Your task to perform on an android device: toggle notification dots Image 0: 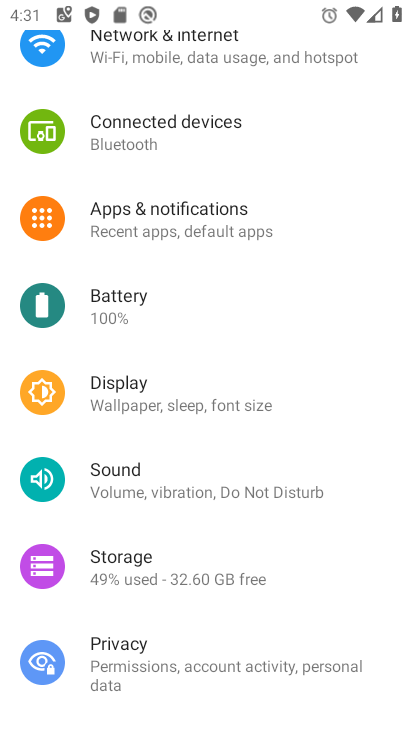
Step 0: click (136, 224)
Your task to perform on an android device: toggle notification dots Image 1: 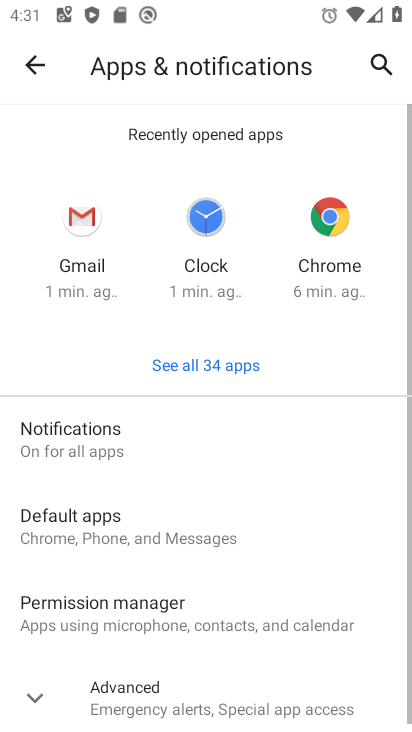
Step 1: click (88, 445)
Your task to perform on an android device: toggle notification dots Image 2: 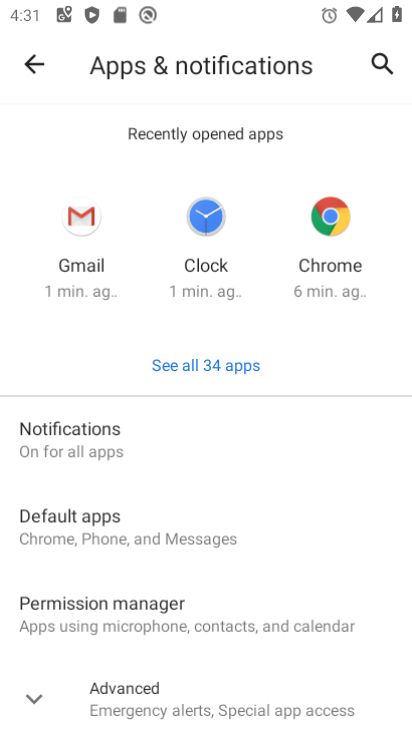
Step 2: click (59, 447)
Your task to perform on an android device: toggle notification dots Image 3: 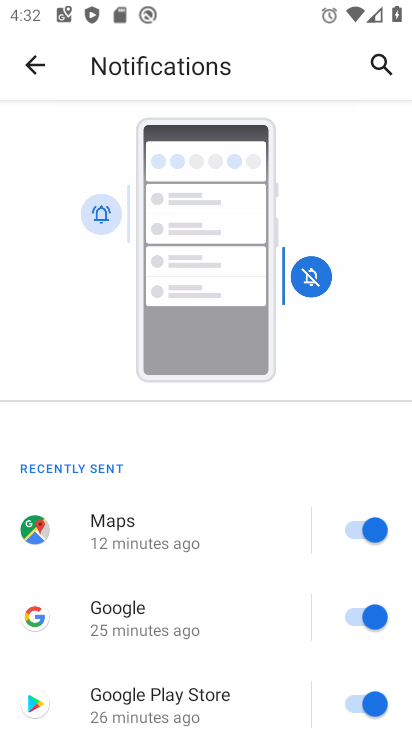
Step 3: drag from (198, 722) to (144, 298)
Your task to perform on an android device: toggle notification dots Image 4: 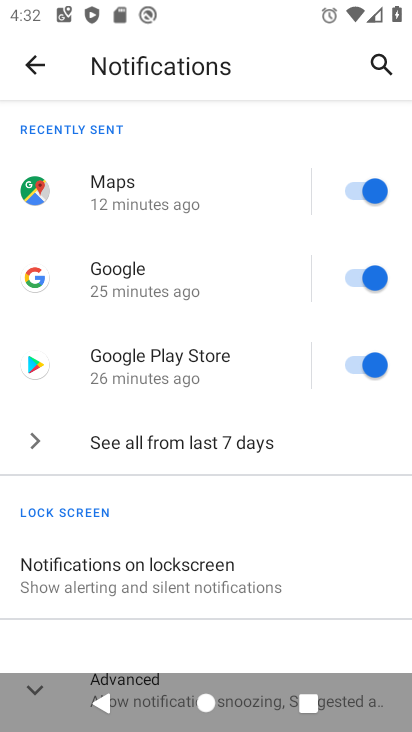
Step 4: drag from (163, 623) to (112, 312)
Your task to perform on an android device: toggle notification dots Image 5: 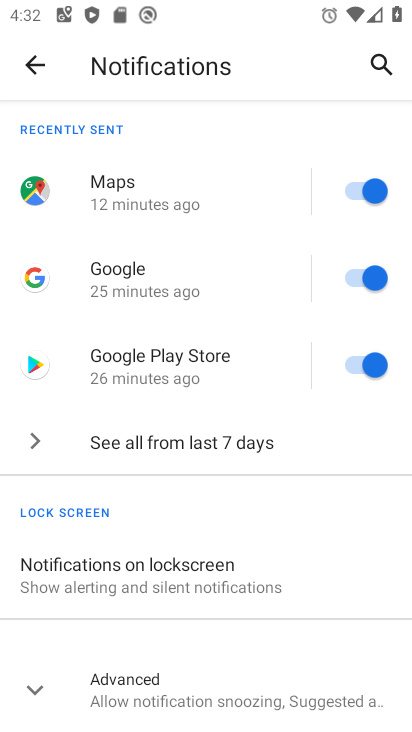
Step 5: click (145, 690)
Your task to perform on an android device: toggle notification dots Image 6: 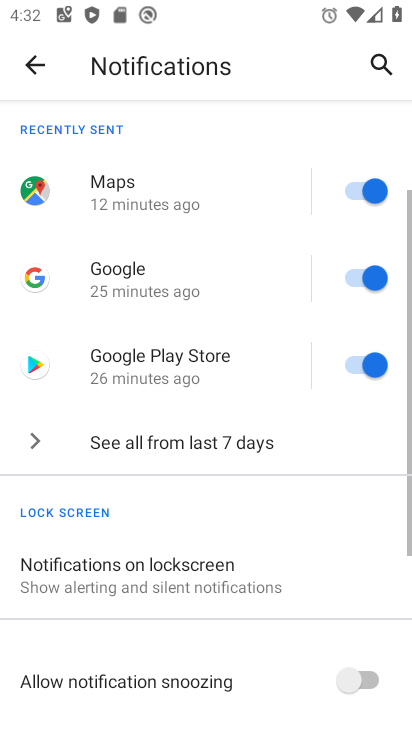
Step 6: drag from (149, 689) to (127, 335)
Your task to perform on an android device: toggle notification dots Image 7: 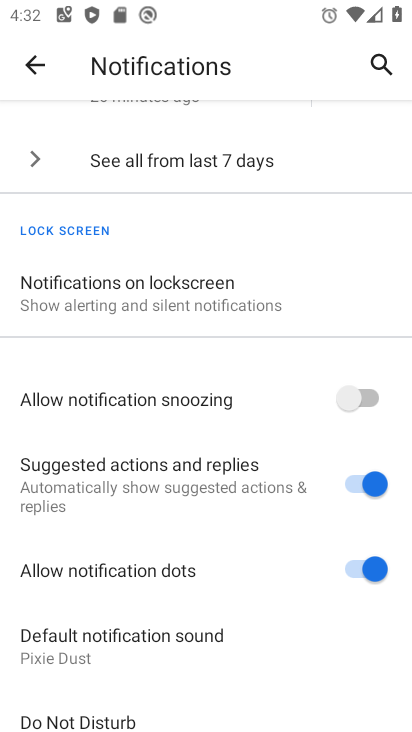
Step 7: click (354, 572)
Your task to perform on an android device: toggle notification dots Image 8: 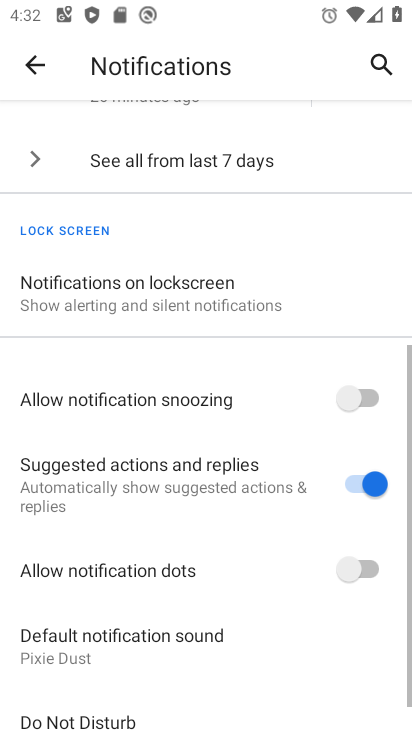
Step 8: task complete